Your task to perform on an android device: Go to location settings Image 0: 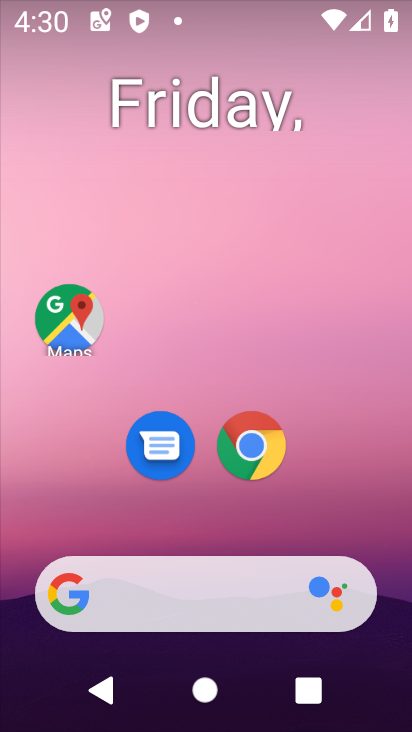
Step 0: drag from (357, 314) to (336, 154)
Your task to perform on an android device: Go to location settings Image 1: 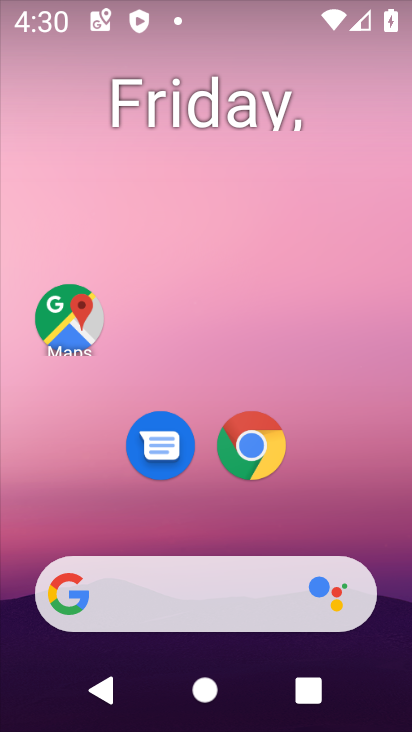
Step 1: drag from (335, 507) to (329, 255)
Your task to perform on an android device: Go to location settings Image 2: 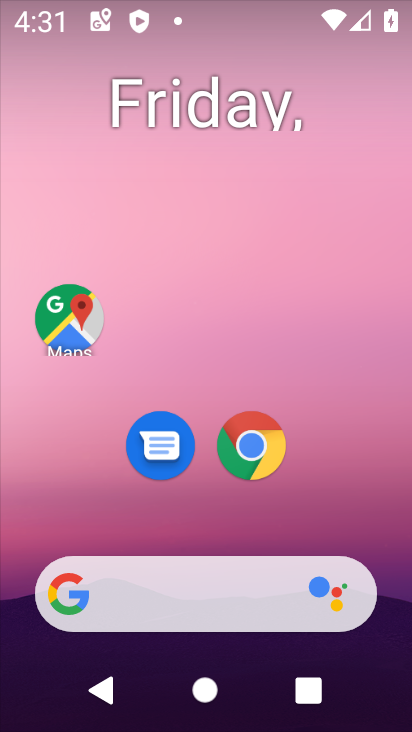
Step 2: drag from (336, 541) to (348, 4)
Your task to perform on an android device: Go to location settings Image 3: 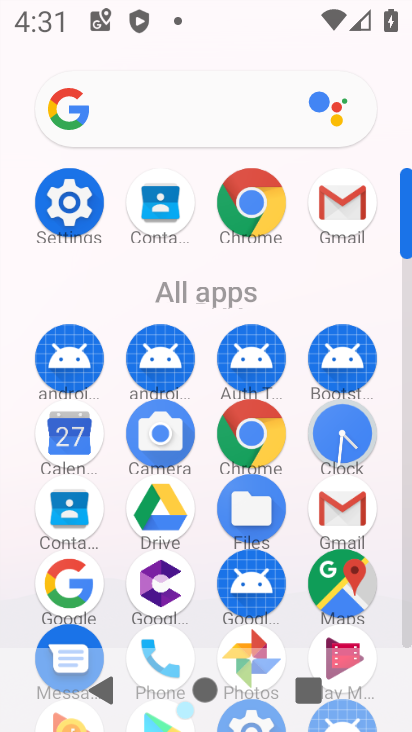
Step 3: click (74, 211)
Your task to perform on an android device: Go to location settings Image 4: 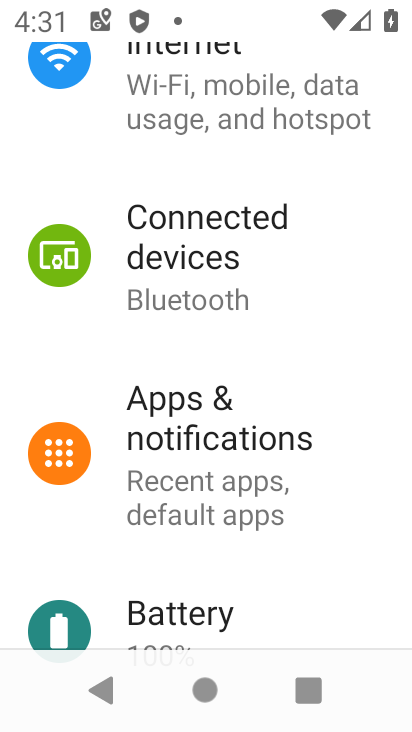
Step 4: drag from (331, 539) to (288, 113)
Your task to perform on an android device: Go to location settings Image 5: 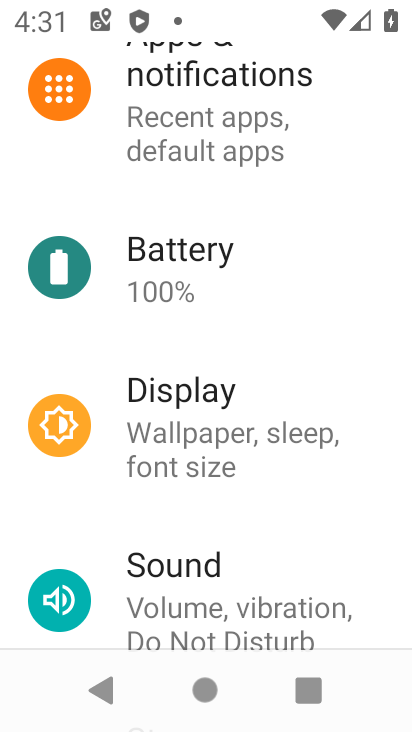
Step 5: drag from (332, 558) to (285, 124)
Your task to perform on an android device: Go to location settings Image 6: 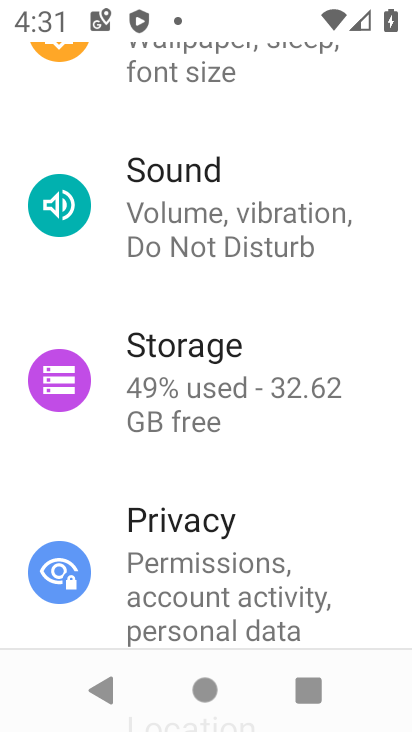
Step 6: drag from (327, 603) to (300, 284)
Your task to perform on an android device: Go to location settings Image 7: 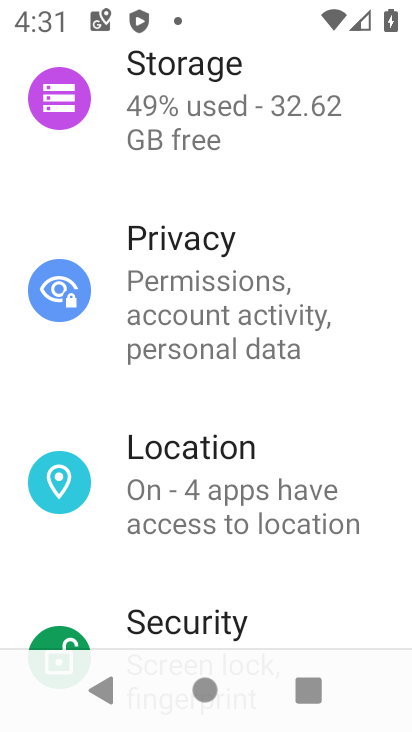
Step 7: click (267, 463)
Your task to perform on an android device: Go to location settings Image 8: 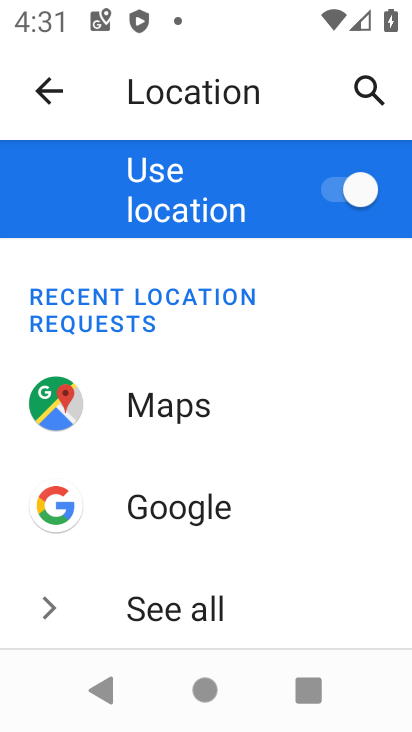
Step 8: task complete